Your task to perform on an android device: Open the calendar app, open the side menu, and click the "Day" option Image 0: 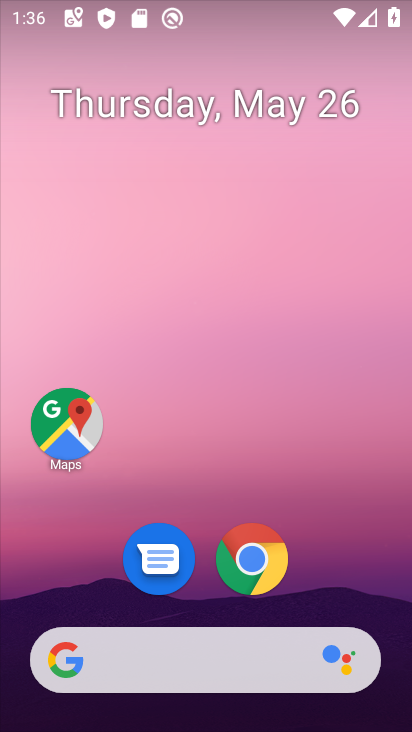
Step 0: press home button
Your task to perform on an android device: Open the calendar app, open the side menu, and click the "Day" option Image 1: 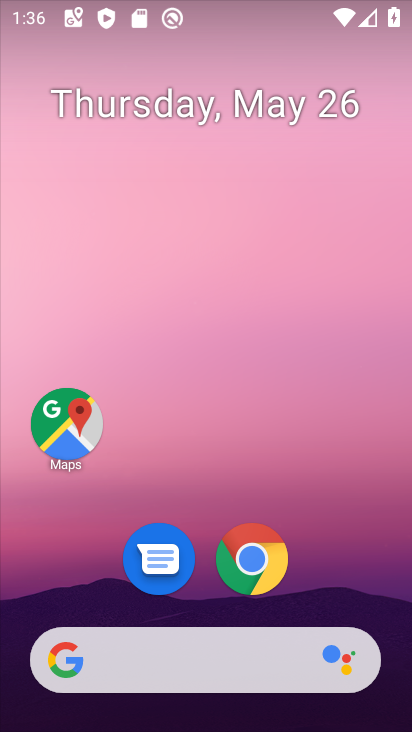
Step 1: drag from (95, 658) to (262, 97)
Your task to perform on an android device: Open the calendar app, open the side menu, and click the "Day" option Image 2: 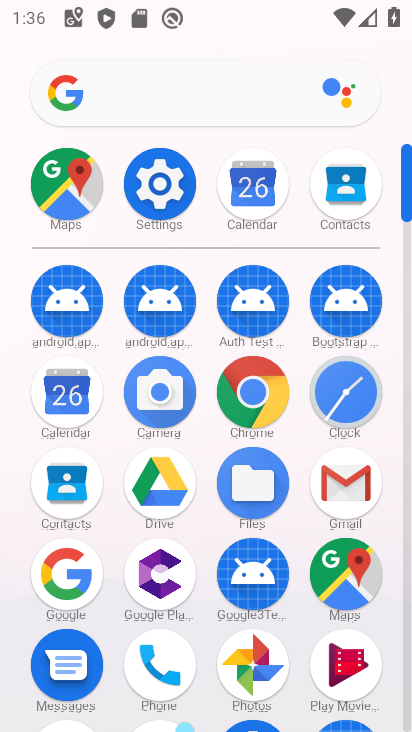
Step 2: click (74, 393)
Your task to perform on an android device: Open the calendar app, open the side menu, and click the "Day" option Image 3: 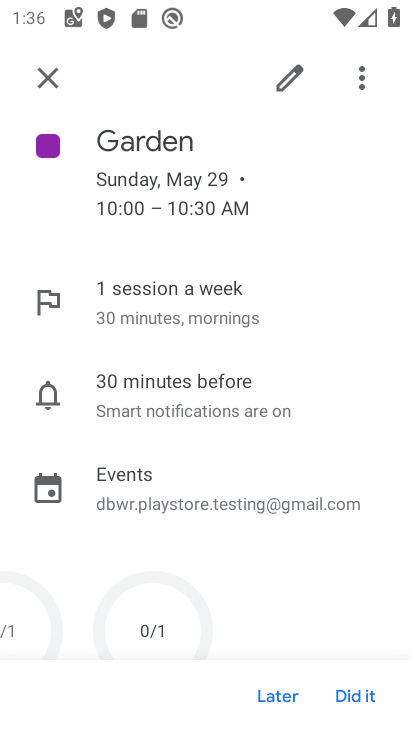
Step 3: click (49, 82)
Your task to perform on an android device: Open the calendar app, open the side menu, and click the "Day" option Image 4: 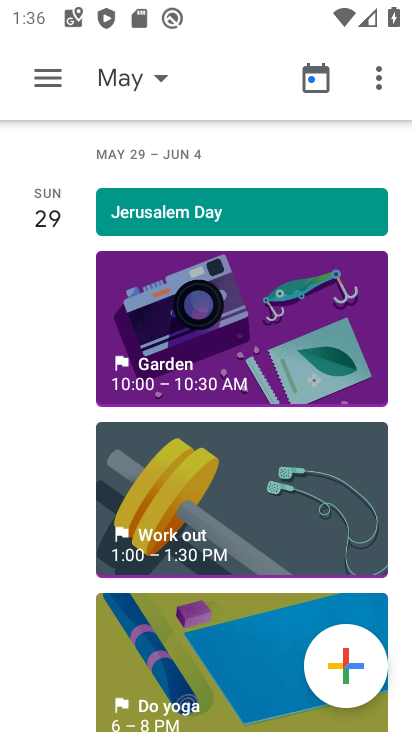
Step 4: click (119, 89)
Your task to perform on an android device: Open the calendar app, open the side menu, and click the "Day" option Image 5: 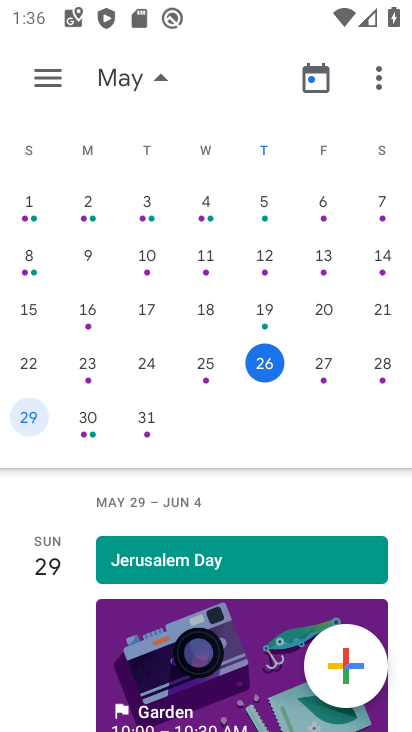
Step 5: click (56, 84)
Your task to perform on an android device: Open the calendar app, open the side menu, and click the "Day" option Image 6: 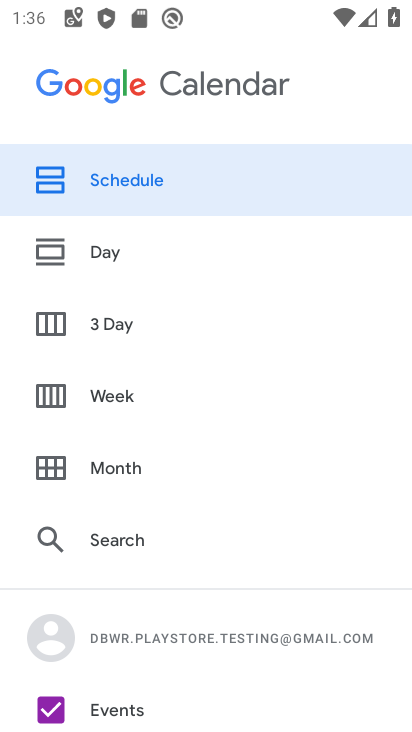
Step 6: click (107, 251)
Your task to perform on an android device: Open the calendar app, open the side menu, and click the "Day" option Image 7: 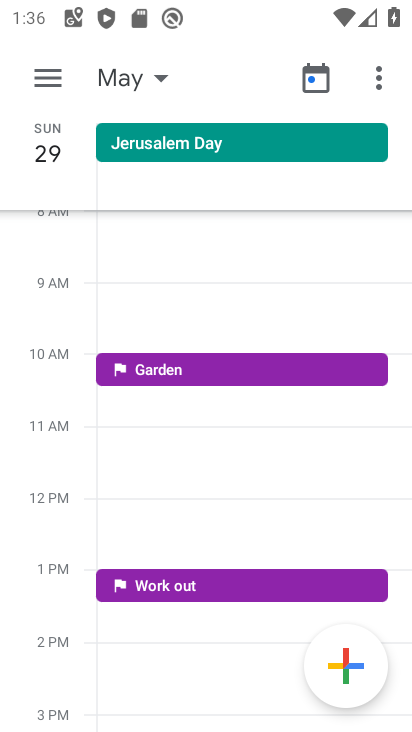
Step 7: task complete